Your task to perform on an android device: Turn on the flashlight Image 0: 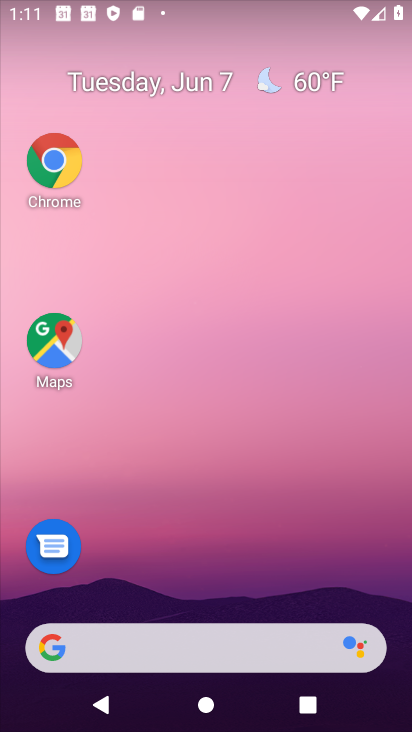
Step 0: drag from (170, 591) to (310, 6)
Your task to perform on an android device: Turn on the flashlight Image 1: 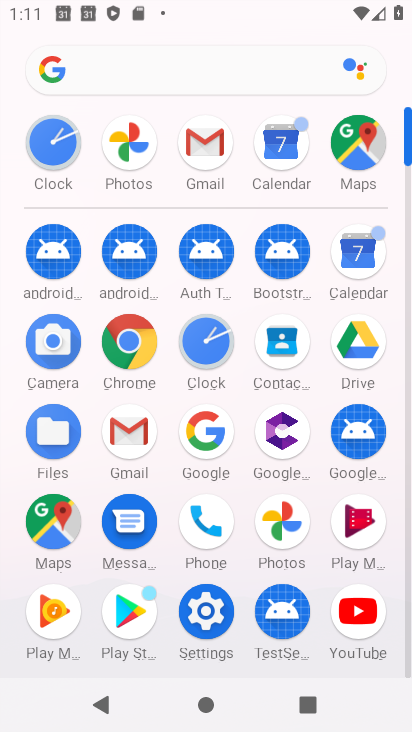
Step 1: click (209, 592)
Your task to perform on an android device: Turn on the flashlight Image 2: 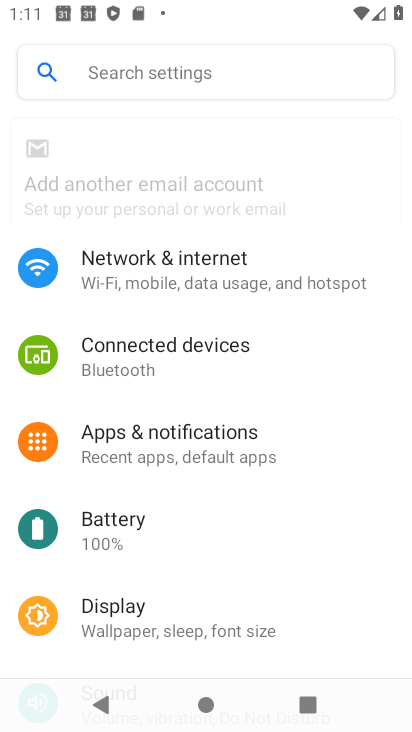
Step 2: click (139, 78)
Your task to perform on an android device: Turn on the flashlight Image 3: 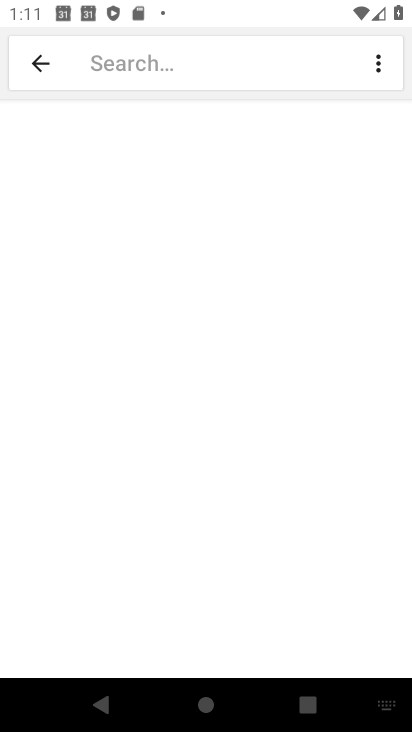
Step 3: type "flashlight"
Your task to perform on an android device: Turn on the flashlight Image 4: 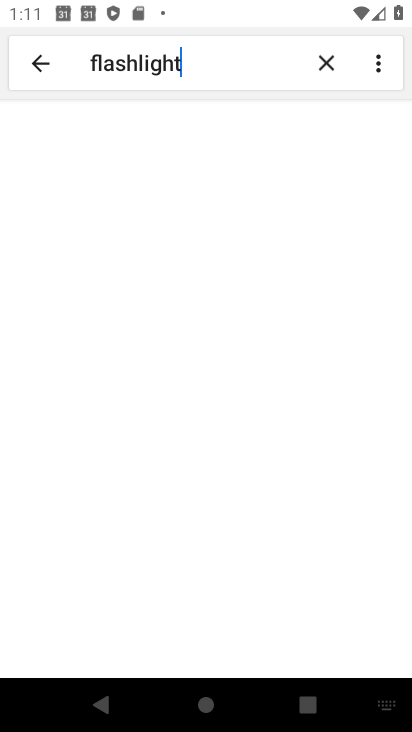
Step 4: type ""
Your task to perform on an android device: Turn on the flashlight Image 5: 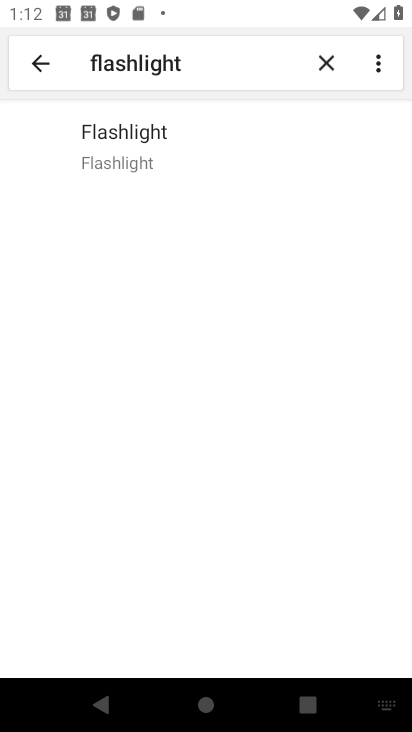
Step 5: click (148, 161)
Your task to perform on an android device: Turn on the flashlight Image 6: 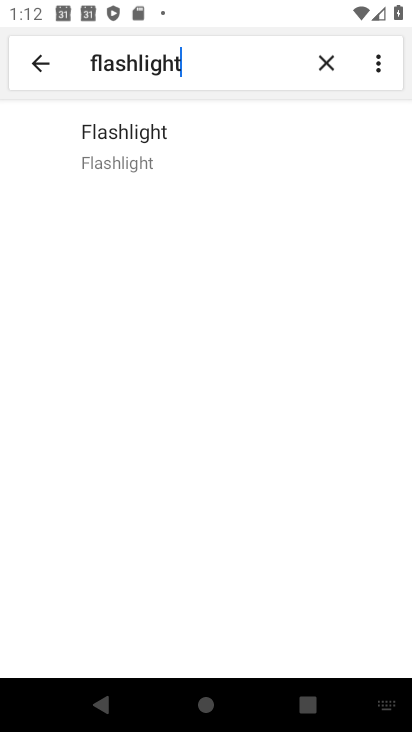
Step 6: task complete